Your task to perform on an android device: Search for vegetarian restaurants on Maps Image 0: 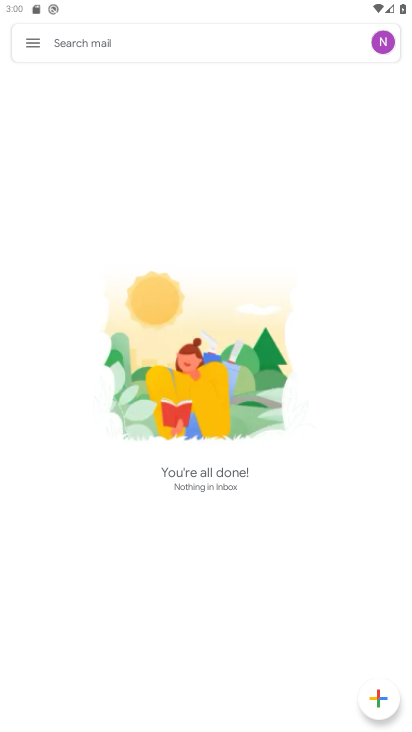
Step 0: press home button
Your task to perform on an android device: Search for vegetarian restaurants on Maps Image 1: 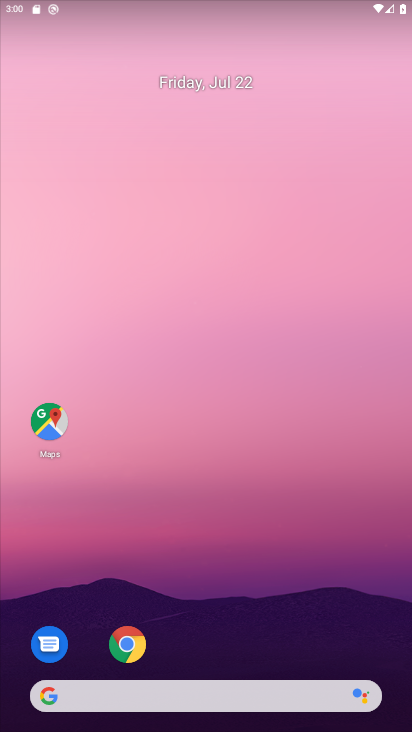
Step 1: drag from (205, 669) to (280, 232)
Your task to perform on an android device: Search for vegetarian restaurants on Maps Image 2: 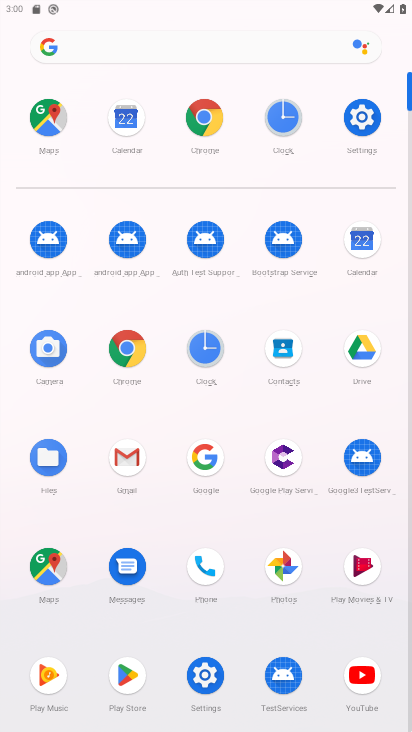
Step 2: click (53, 107)
Your task to perform on an android device: Search for vegetarian restaurants on Maps Image 3: 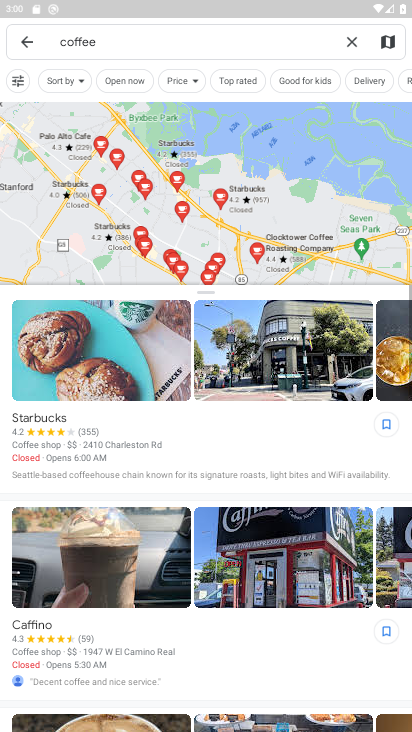
Step 3: click (346, 38)
Your task to perform on an android device: Search for vegetarian restaurants on Maps Image 4: 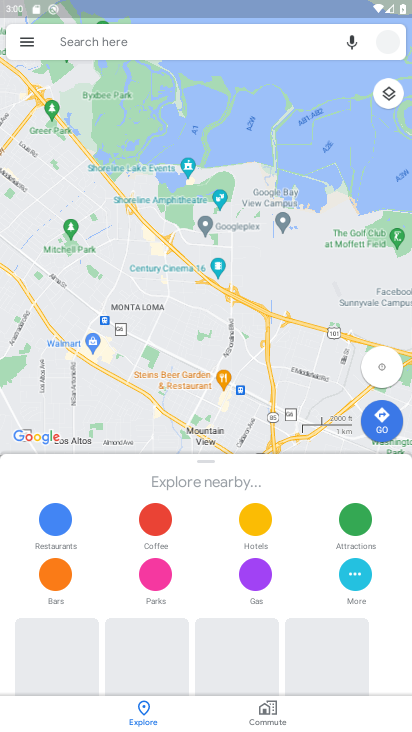
Step 4: click (144, 39)
Your task to perform on an android device: Search for vegetarian restaurants on Maps Image 5: 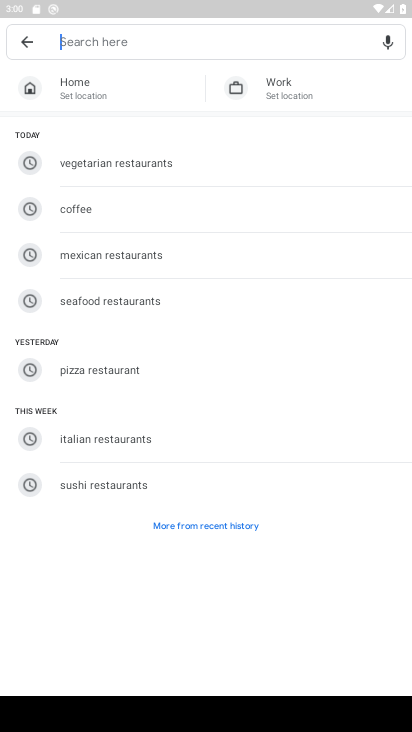
Step 5: click (134, 162)
Your task to perform on an android device: Search for vegetarian restaurants on Maps Image 6: 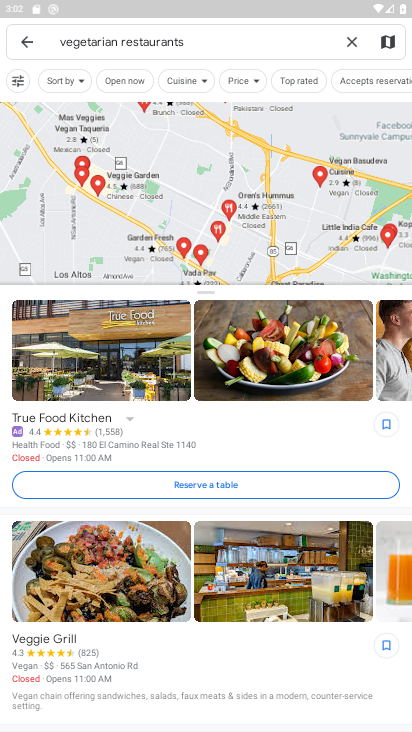
Step 6: task complete